Your task to perform on an android device: Go to settings Image 0: 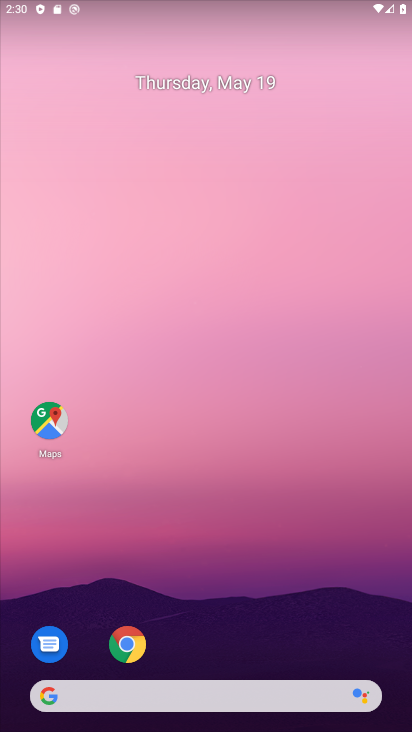
Step 0: drag from (199, 641) to (264, 186)
Your task to perform on an android device: Go to settings Image 1: 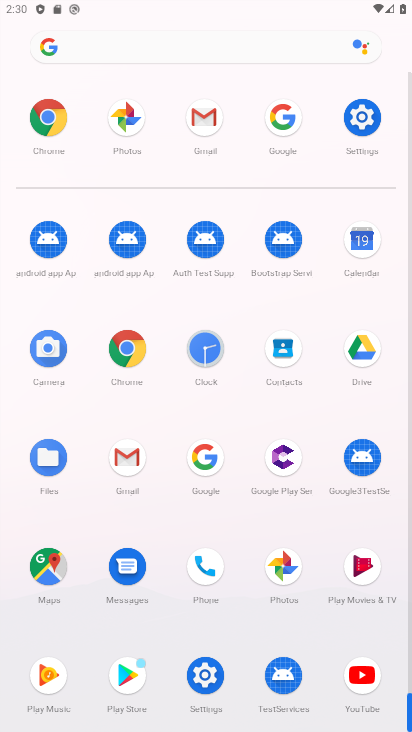
Step 1: click (364, 113)
Your task to perform on an android device: Go to settings Image 2: 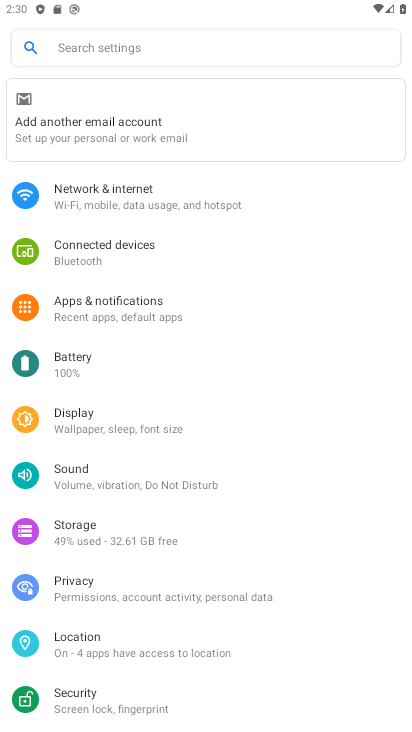
Step 2: task complete